Your task to perform on an android device: What's the weather going to be this weekend? Image 0: 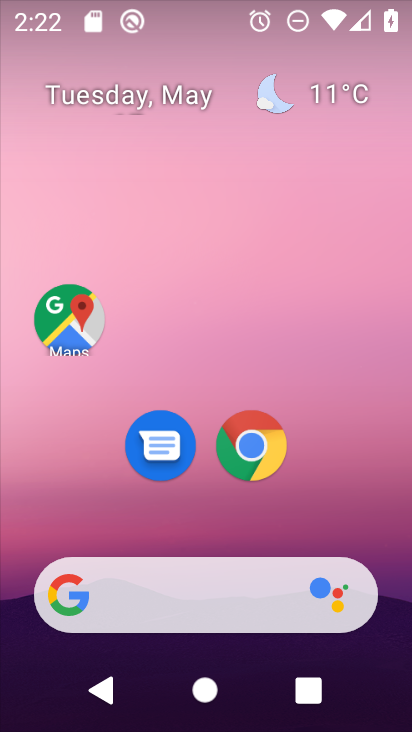
Step 0: drag from (379, 510) to (305, 177)
Your task to perform on an android device: What's the weather going to be this weekend? Image 1: 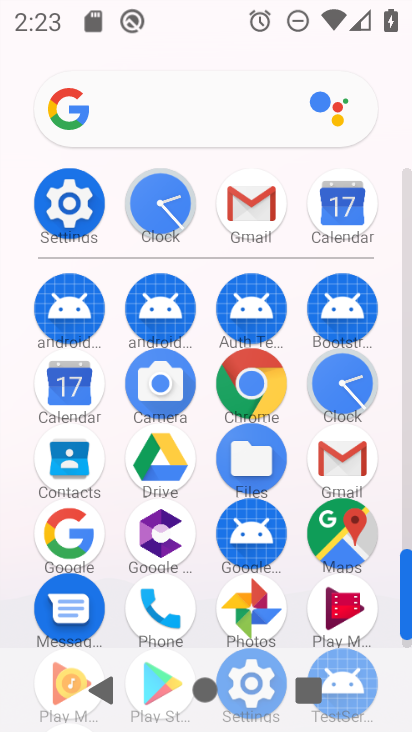
Step 1: drag from (211, 158) to (297, 684)
Your task to perform on an android device: What's the weather going to be this weekend? Image 2: 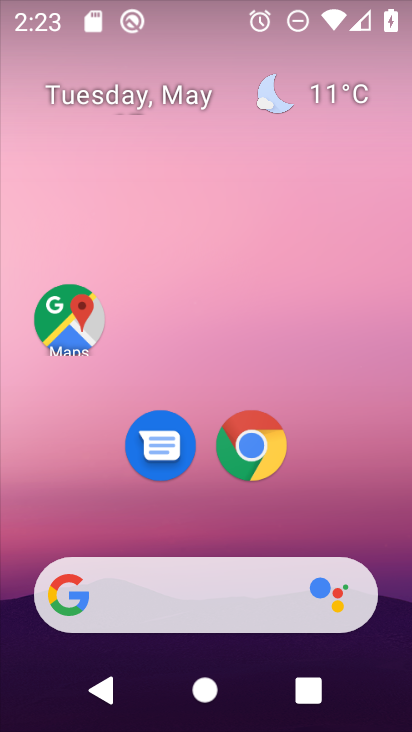
Step 2: click (341, 85)
Your task to perform on an android device: What's the weather going to be this weekend? Image 3: 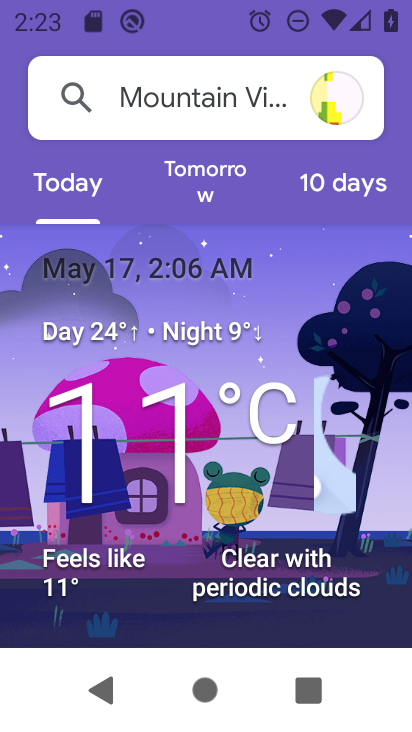
Step 3: click (320, 170)
Your task to perform on an android device: What's the weather going to be this weekend? Image 4: 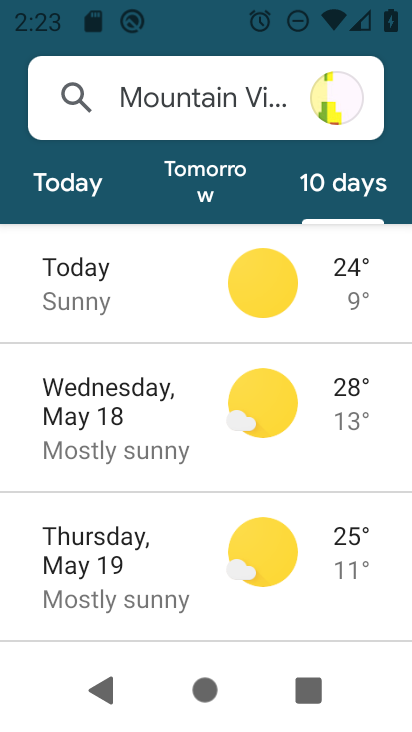
Step 4: task complete